Your task to perform on an android device: What is the recent news? Image 0: 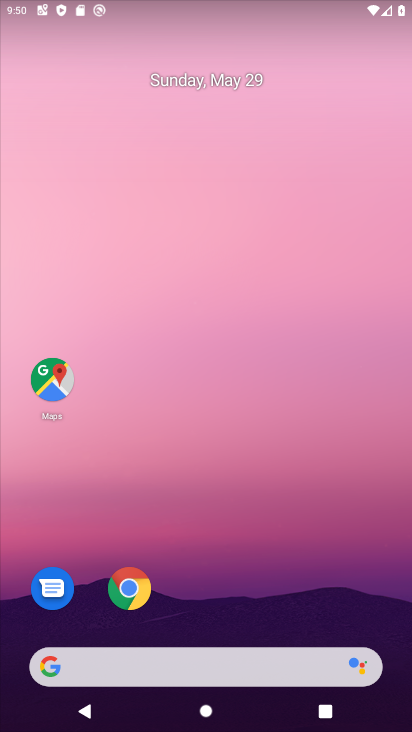
Step 0: drag from (231, 564) to (259, 91)
Your task to perform on an android device: What is the recent news? Image 1: 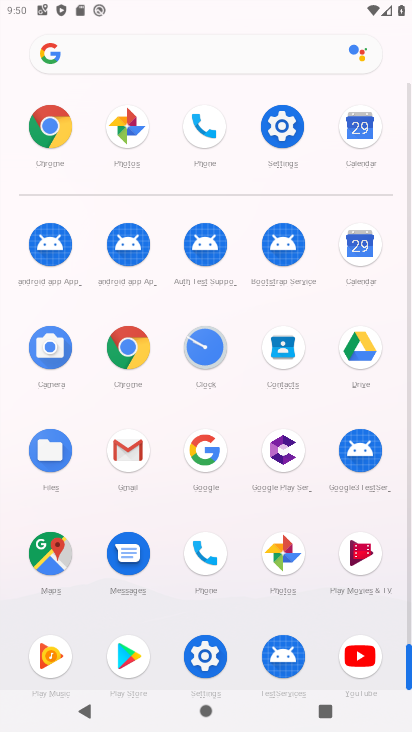
Step 1: click (206, 468)
Your task to perform on an android device: What is the recent news? Image 2: 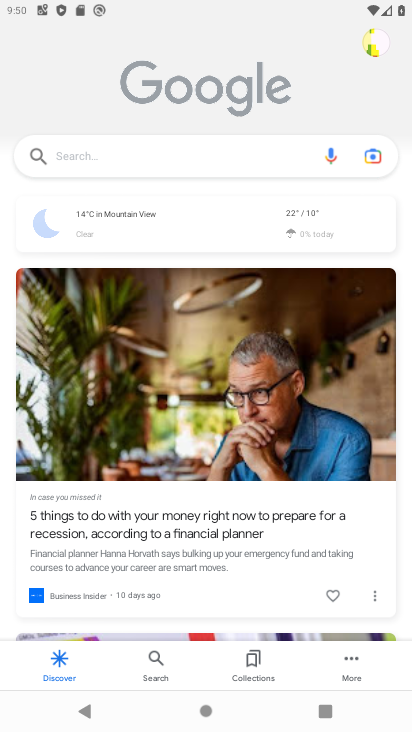
Step 2: task complete